Your task to perform on an android device: open the mobile data screen to see how much data has been used Image 0: 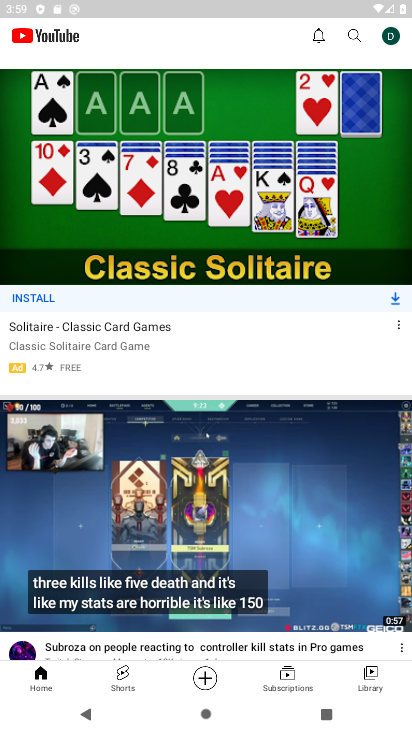
Step 0: press home button
Your task to perform on an android device: open the mobile data screen to see how much data has been used Image 1: 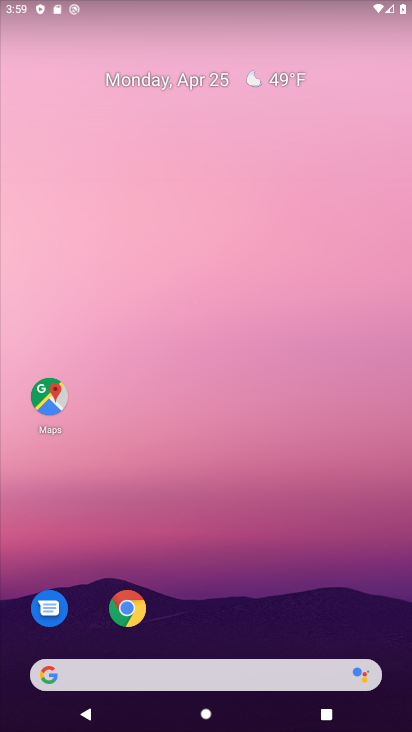
Step 1: drag from (285, 615) to (288, 248)
Your task to perform on an android device: open the mobile data screen to see how much data has been used Image 2: 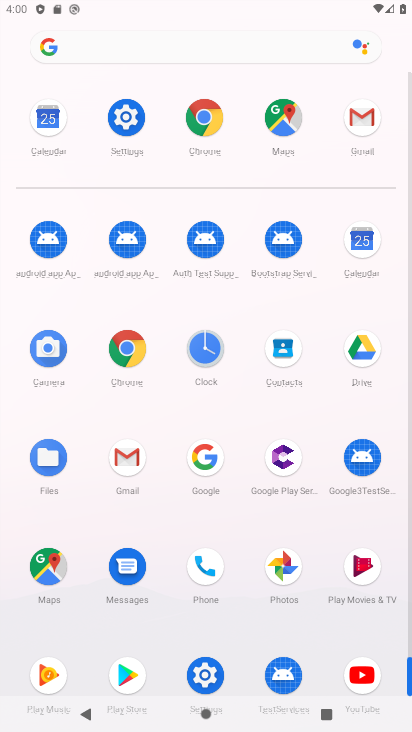
Step 2: click (135, 124)
Your task to perform on an android device: open the mobile data screen to see how much data has been used Image 3: 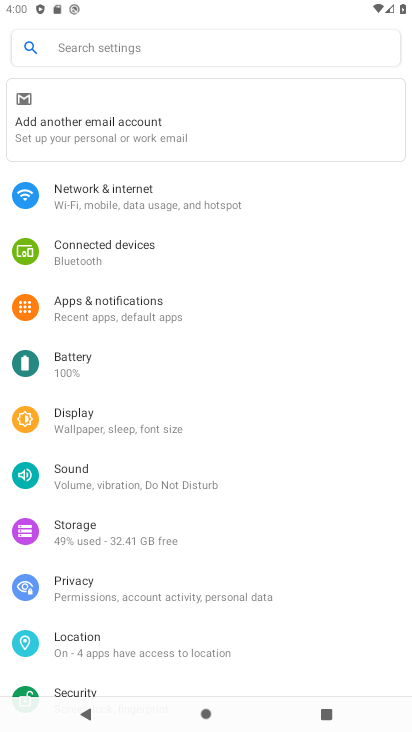
Step 3: click (152, 202)
Your task to perform on an android device: open the mobile data screen to see how much data has been used Image 4: 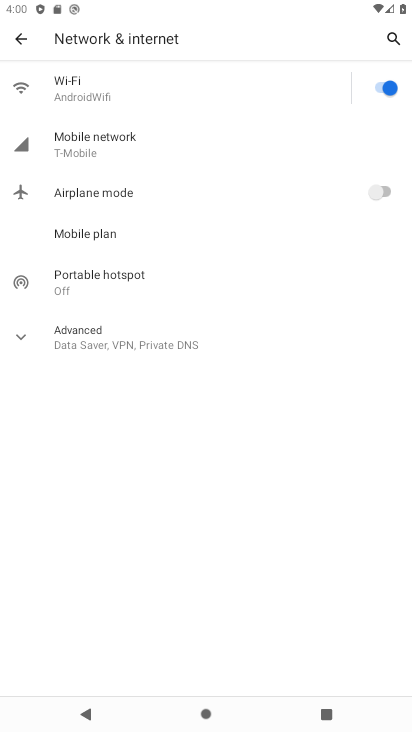
Step 4: click (141, 144)
Your task to perform on an android device: open the mobile data screen to see how much data has been used Image 5: 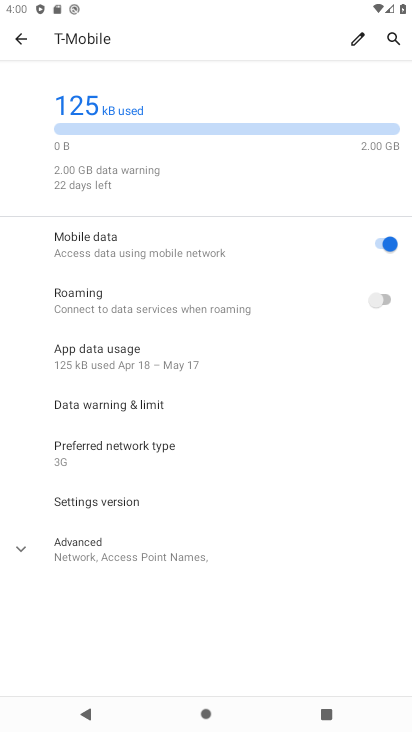
Step 5: click (159, 555)
Your task to perform on an android device: open the mobile data screen to see how much data has been used Image 6: 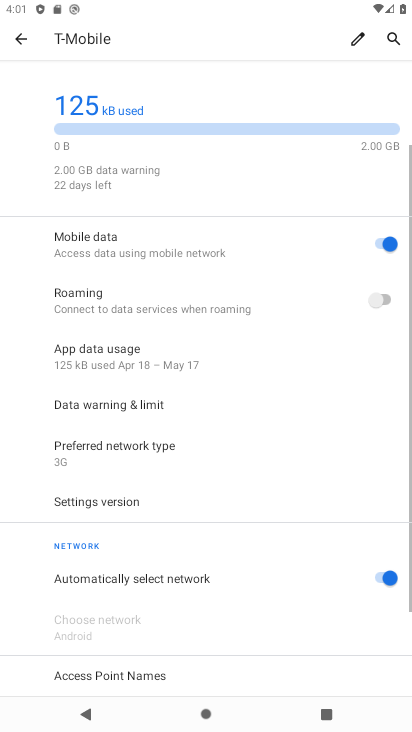
Step 6: click (174, 370)
Your task to perform on an android device: open the mobile data screen to see how much data has been used Image 7: 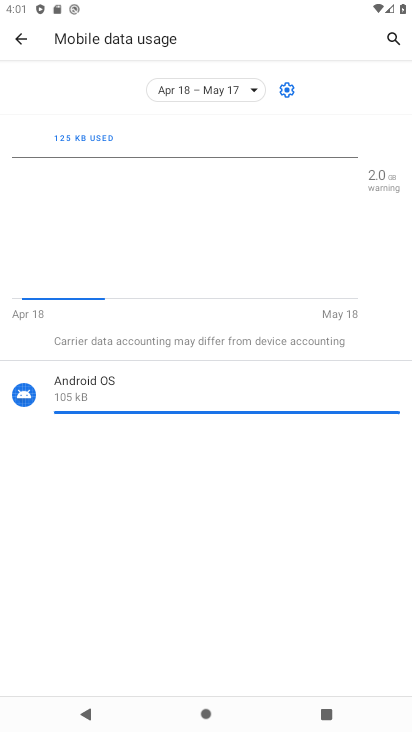
Step 7: task complete